Your task to perform on an android device: uninstall "Lyft - Rideshare, Bikes, Scooters & Transit" Image 0: 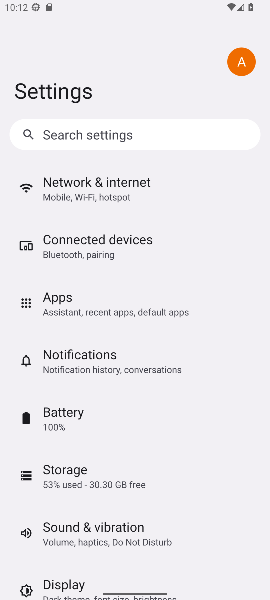
Step 0: press home button
Your task to perform on an android device: uninstall "Lyft - Rideshare, Bikes, Scooters & Transit" Image 1: 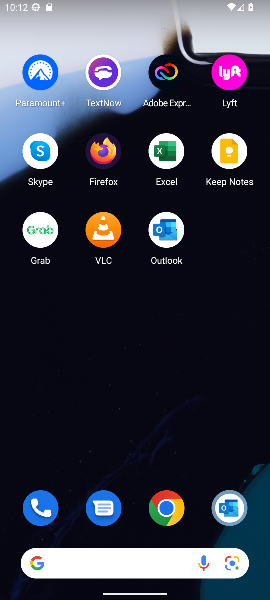
Step 1: drag from (108, 392) to (111, 6)
Your task to perform on an android device: uninstall "Lyft - Rideshare, Bikes, Scooters & Transit" Image 2: 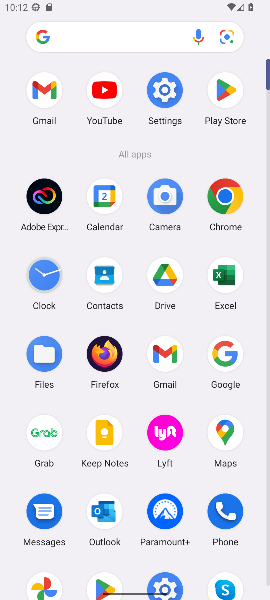
Step 2: click (217, 91)
Your task to perform on an android device: uninstall "Lyft - Rideshare, Bikes, Scooters & Transit" Image 3: 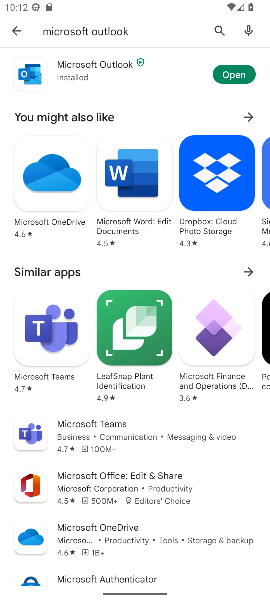
Step 3: click (213, 28)
Your task to perform on an android device: uninstall "Lyft - Rideshare, Bikes, Scooters & Transit" Image 4: 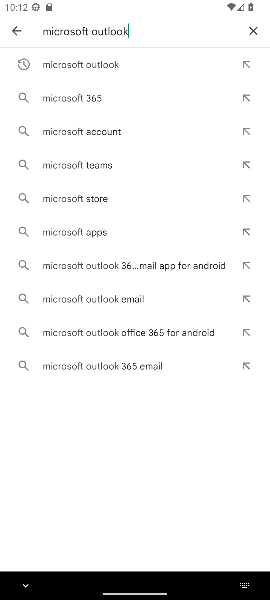
Step 4: click (252, 31)
Your task to perform on an android device: uninstall "Lyft - Rideshare, Bikes, Scooters & Transit" Image 5: 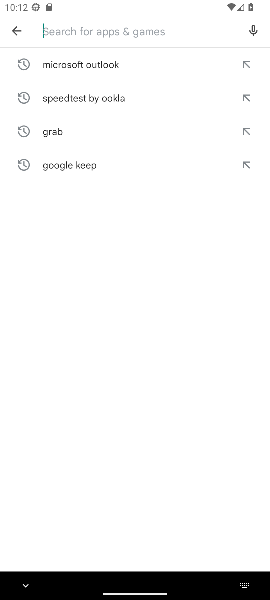
Step 5: type "Lyft - Rideshare, Bikes, Scooters & Transit"
Your task to perform on an android device: uninstall "Lyft - Rideshare, Bikes, Scooters & Transit" Image 6: 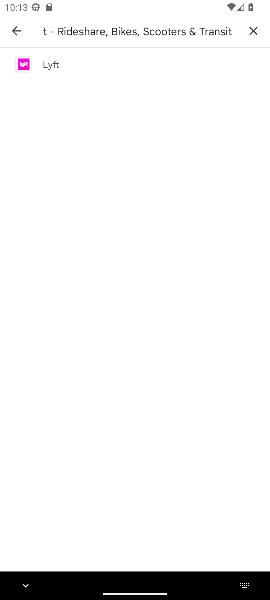
Step 6: click (55, 64)
Your task to perform on an android device: uninstall "Lyft - Rideshare, Bikes, Scooters & Transit" Image 7: 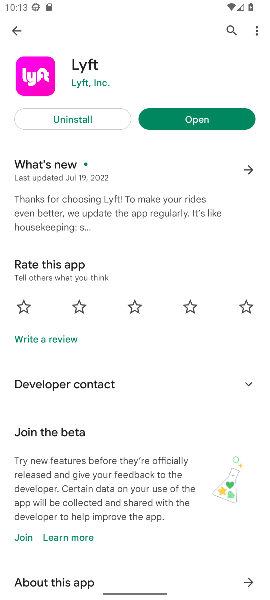
Step 7: click (65, 108)
Your task to perform on an android device: uninstall "Lyft - Rideshare, Bikes, Scooters & Transit" Image 8: 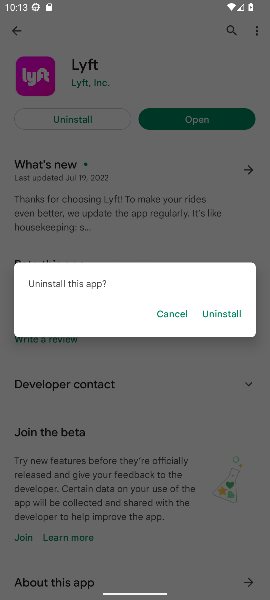
Step 8: click (210, 316)
Your task to perform on an android device: uninstall "Lyft - Rideshare, Bikes, Scooters & Transit" Image 9: 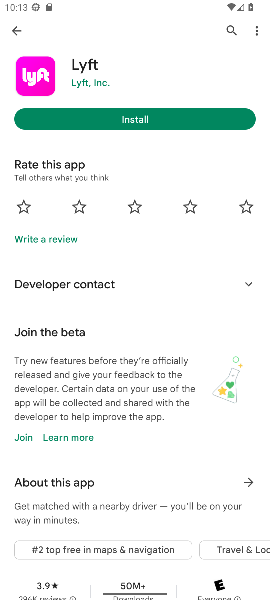
Step 9: task complete